Your task to perform on an android device: Do I have any events this weekend? Image 0: 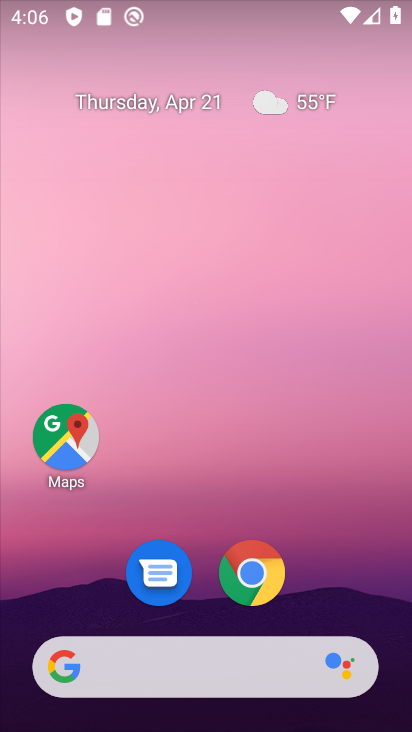
Step 0: drag from (383, 615) to (278, 161)
Your task to perform on an android device: Do I have any events this weekend? Image 1: 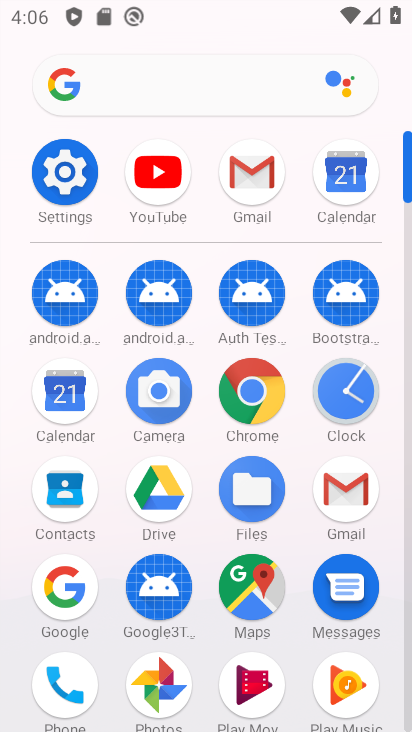
Step 1: click (407, 702)
Your task to perform on an android device: Do I have any events this weekend? Image 2: 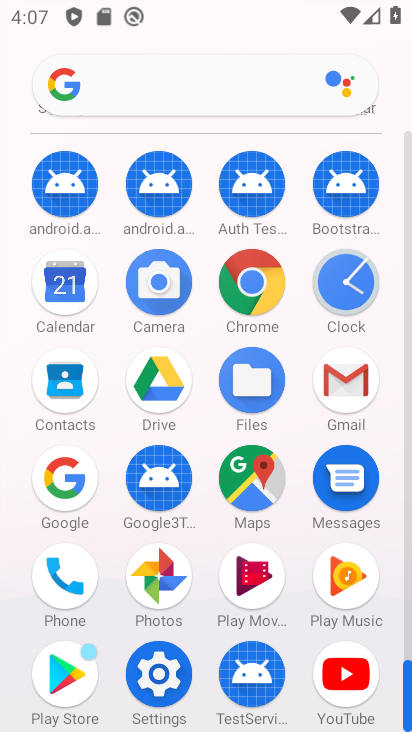
Step 2: click (63, 277)
Your task to perform on an android device: Do I have any events this weekend? Image 3: 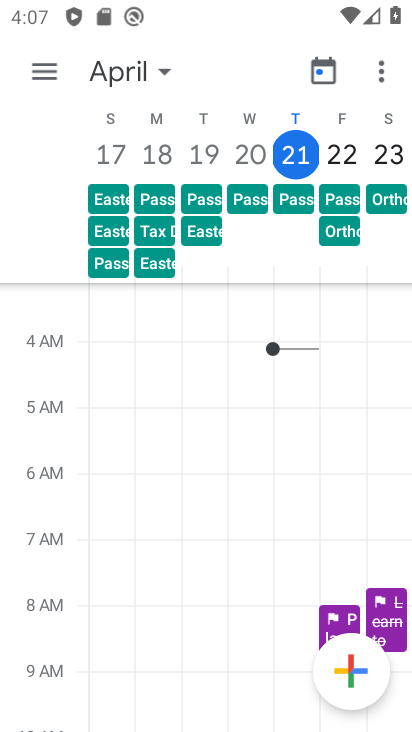
Step 3: click (43, 63)
Your task to perform on an android device: Do I have any events this weekend? Image 4: 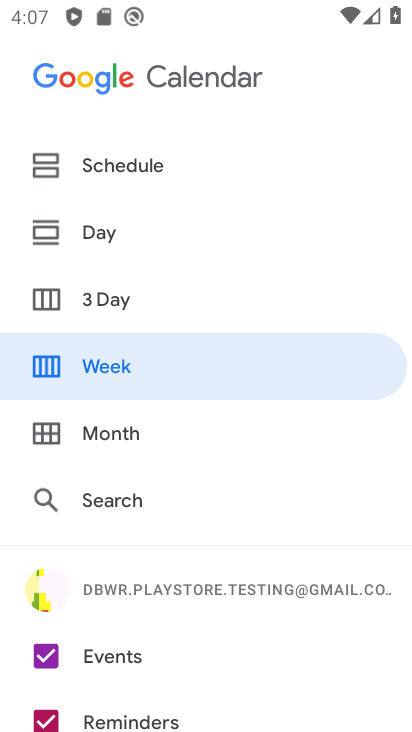
Step 4: click (133, 169)
Your task to perform on an android device: Do I have any events this weekend? Image 5: 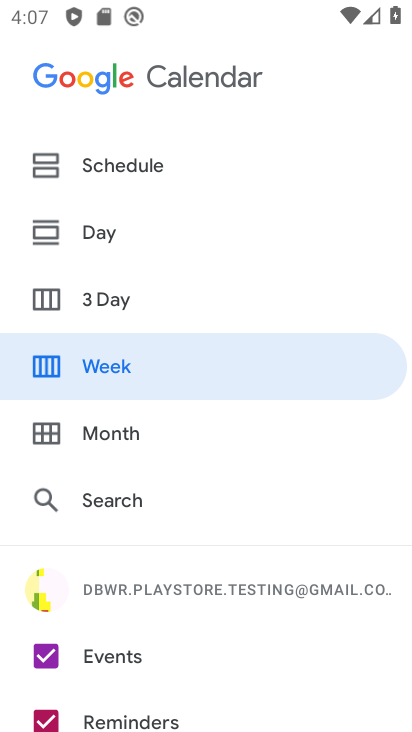
Step 5: click (93, 162)
Your task to perform on an android device: Do I have any events this weekend? Image 6: 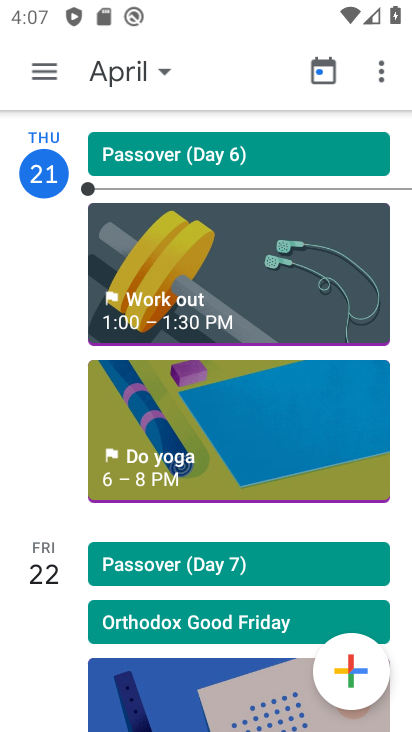
Step 6: task complete